Your task to perform on an android device: Open network settings Image 0: 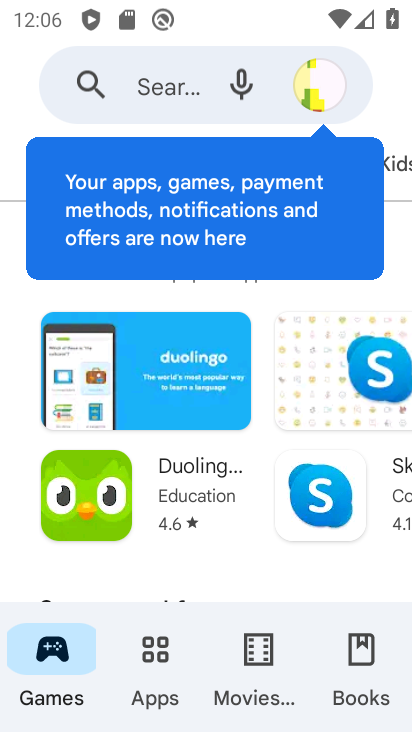
Step 0: press home button
Your task to perform on an android device: Open network settings Image 1: 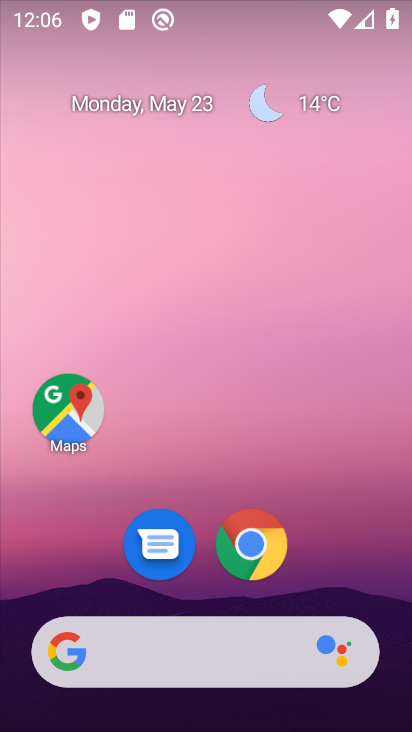
Step 1: drag from (328, 539) to (254, 101)
Your task to perform on an android device: Open network settings Image 2: 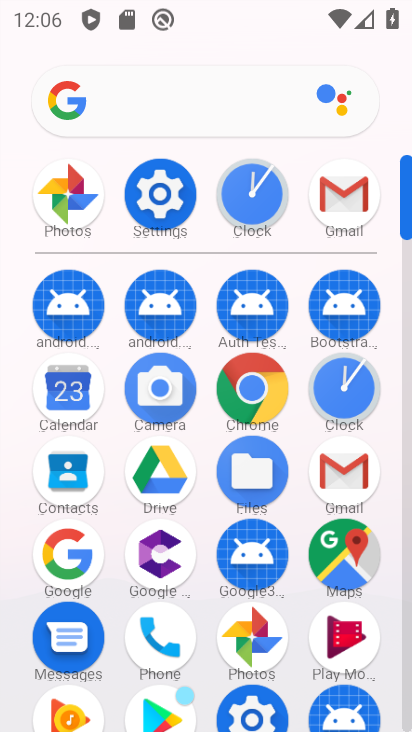
Step 2: click (169, 199)
Your task to perform on an android device: Open network settings Image 3: 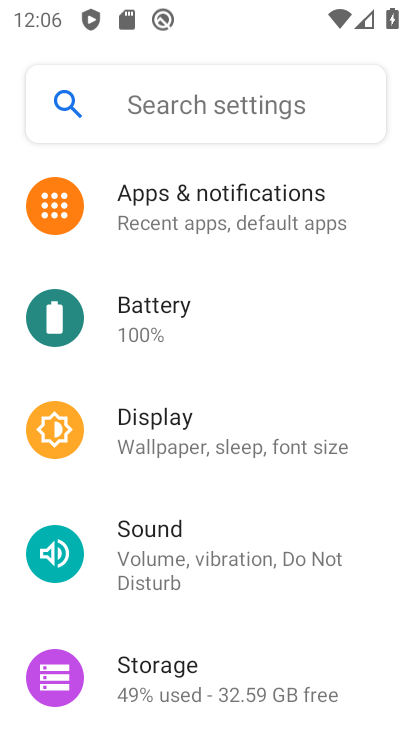
Step 3: drag from (175, 215) to (220, 674)
Your task to perform on an android device: Open network settings Image 4: 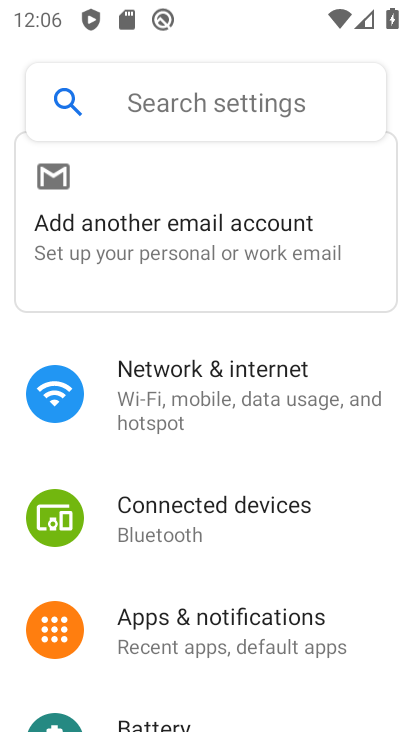
Step 4: click (184, 374)
Your task to perform on an android device: Open network settings Image 5: 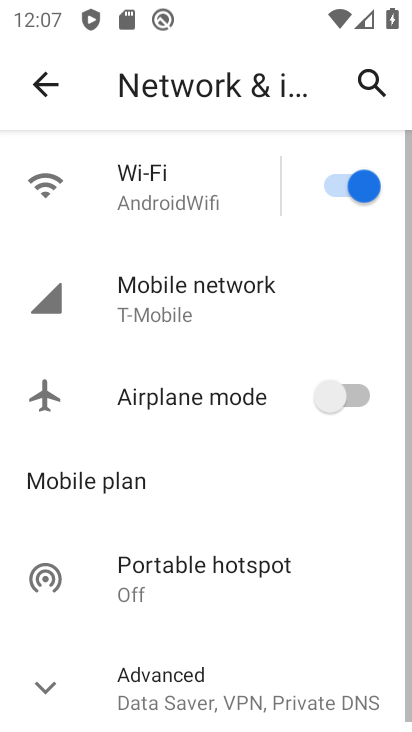
Step 5: task complete